Your task to perform on an android device: delete a single message in the gmail app Image 0: 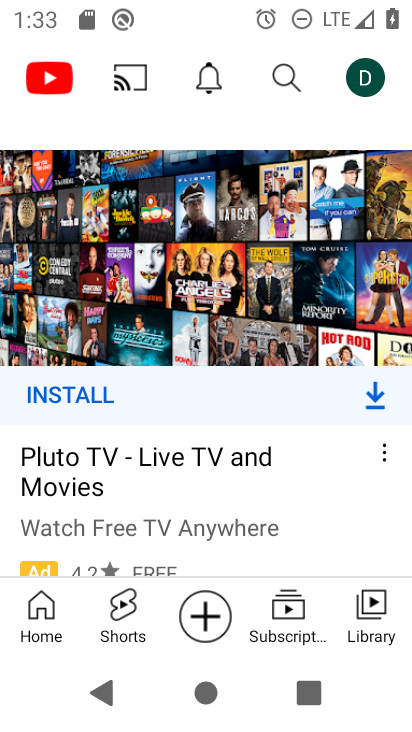
Step 0: press home button
Your task to perform on an android device: delete a single message in the gmail app Image 1: 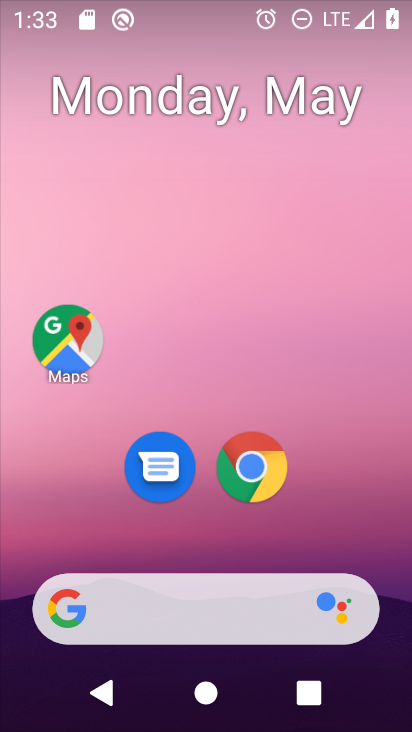
Step 1: drag from (376, 567) to (390, 17)
Your task to perform on an android device: delete a single message in the gmail app Image 2: 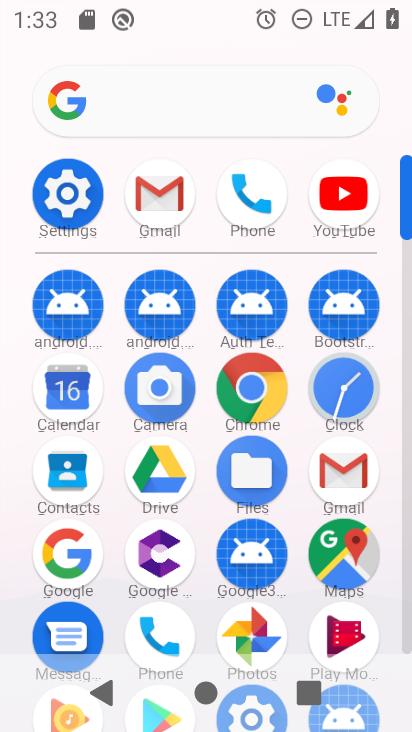
Step 2: click (166, 199)
Your task to perform on an android device: delete a single message in the gmail app Image 3: 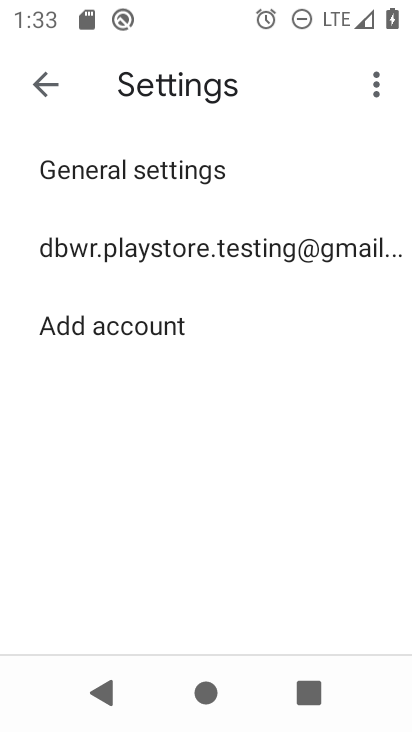
Step 3: click (45, 86)
Your task to perform on an android device: delete a single message in the gmail app Image 4: 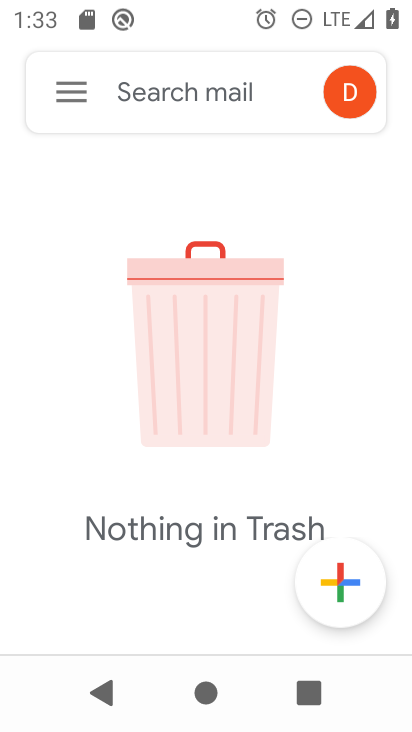
Step 4: click (63, 87)
Your task to perform on an android device: delete a single message in the gmail app Image 5: 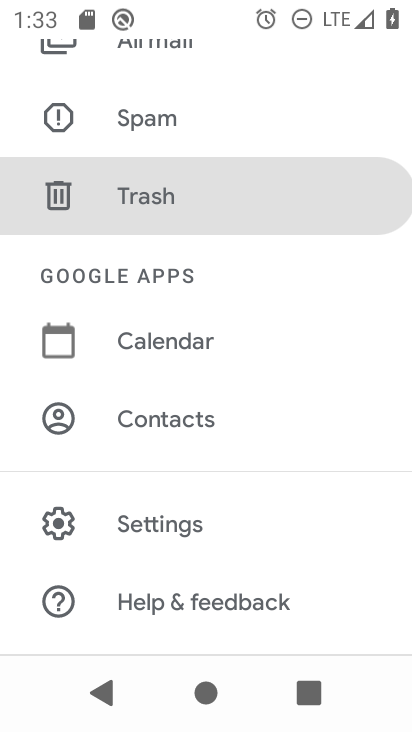
Step 5: drag from (246, 307) to (260, 505)
Your task to perform on an android device: delete a single message in the gmail app Image 6: 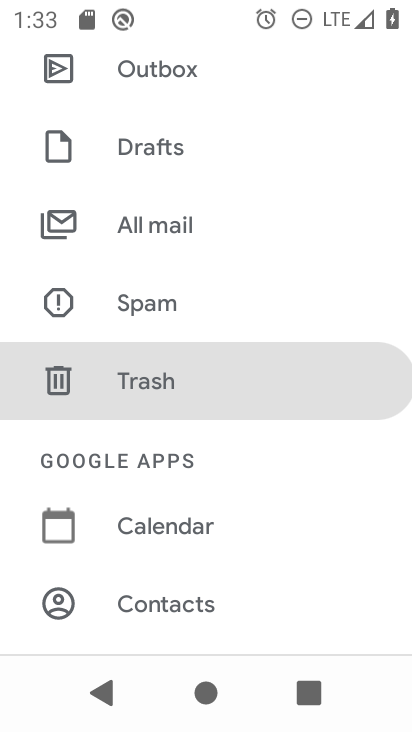
Step 6: click (146, 232)
Your task to perform on an android device: delete a single message in the gmail app Image 7: 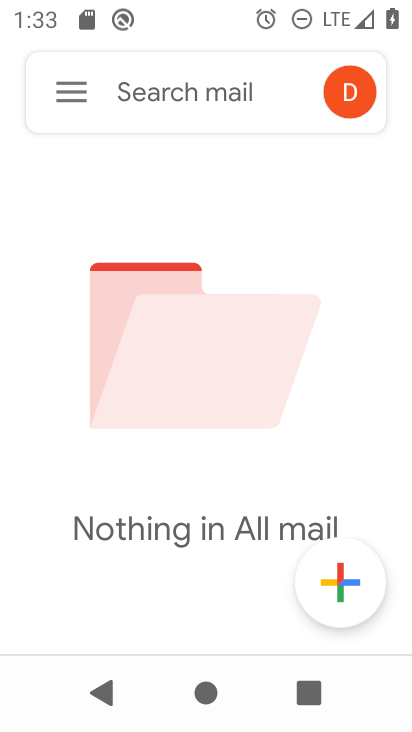
Step 7: task complete